Your task to perform on an android device: Toggle the flashlight Image 0: 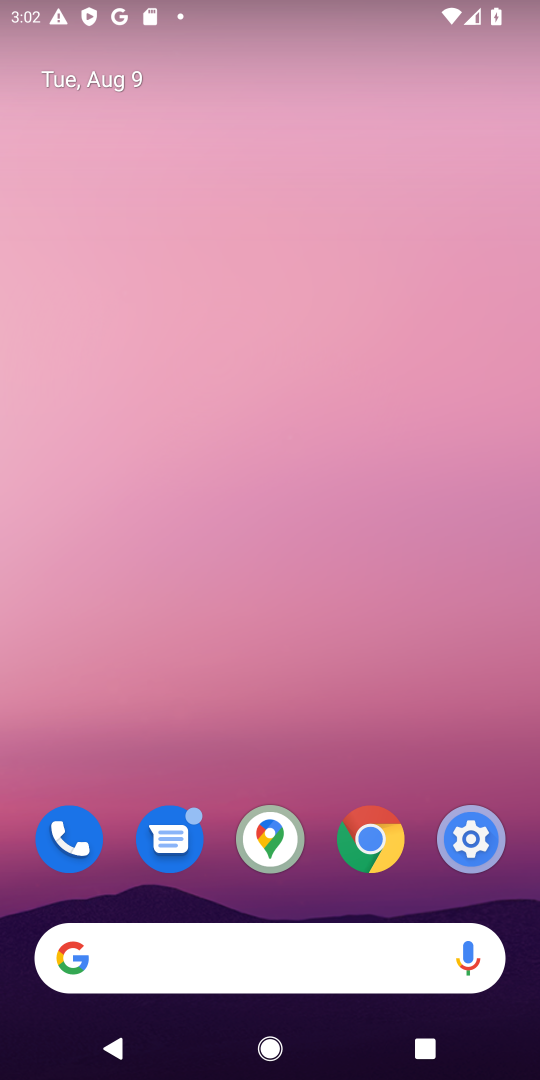
Step 0: press home button
Your task to perform on an android device: Toggle the flashlight Image 1: 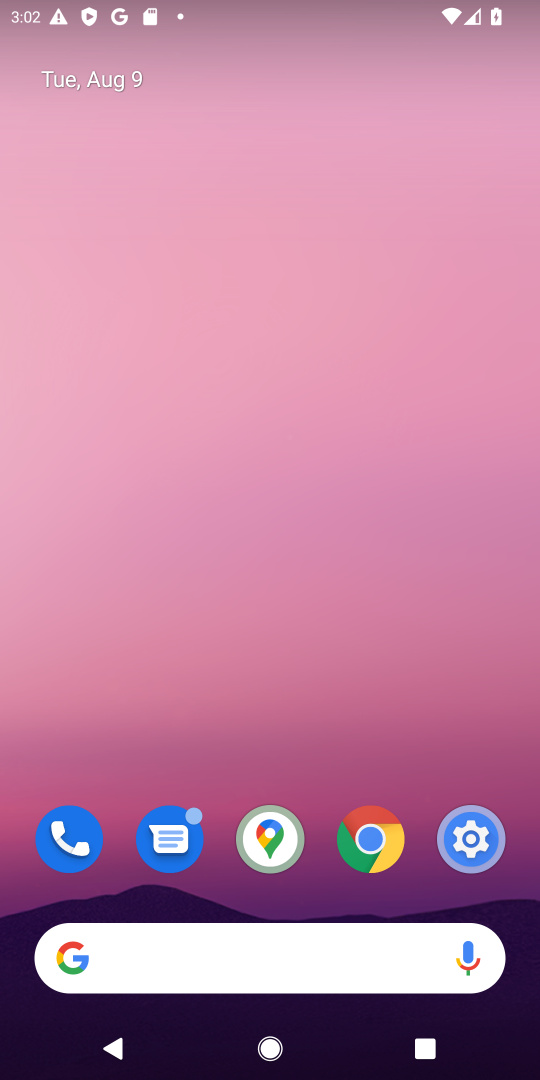
Step 1: drag from (313, 2) to (310, 504)
Your task to perform on an android device: Toggle the flashlight Image 2: 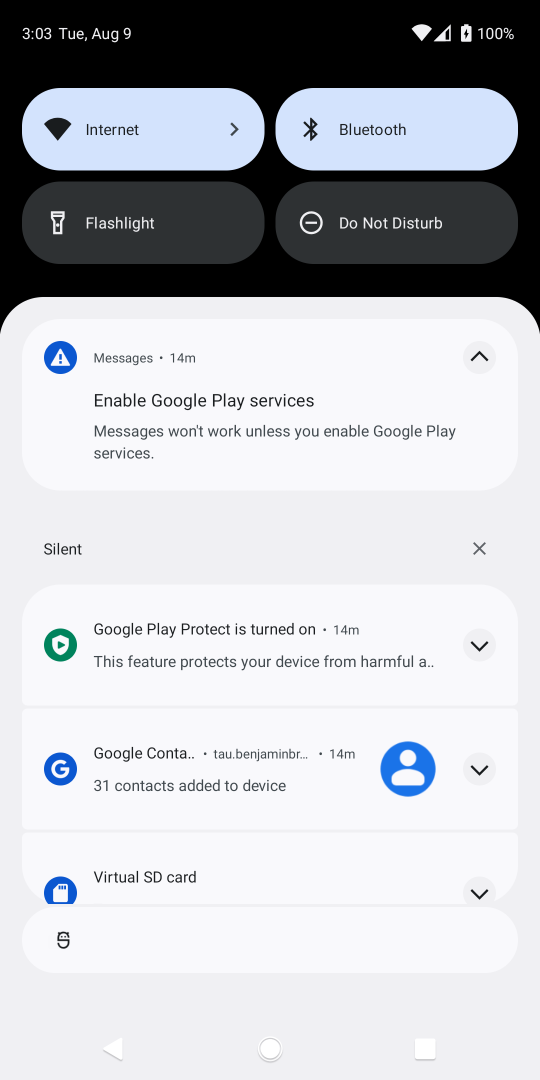
Step 2: click (167, 226)
Your task to perform on an android device: Toggle the flashlight Image 3: 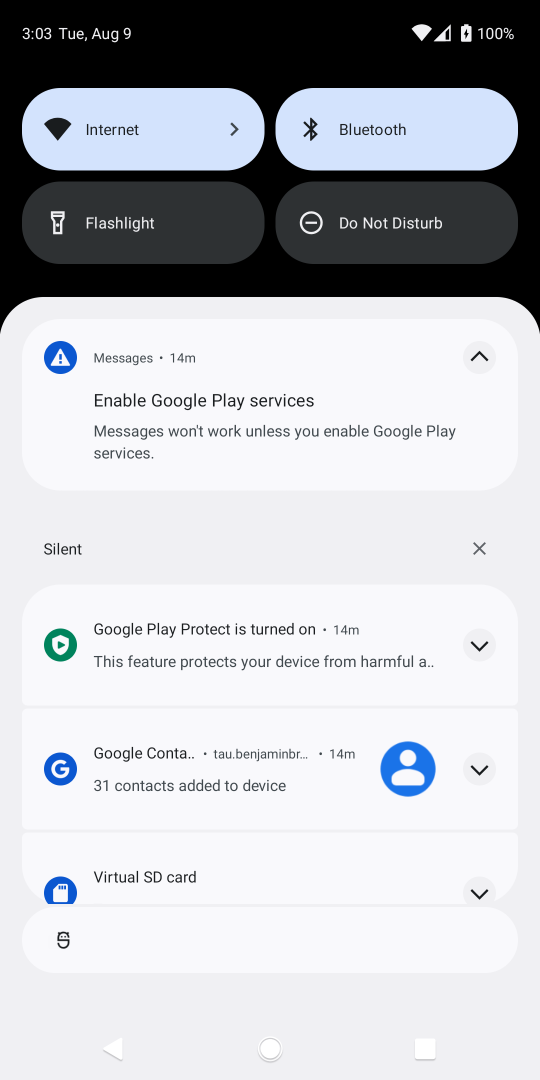
Step 3: task complete